Your task to perform on an android device: Go to wifi settings Image 0: 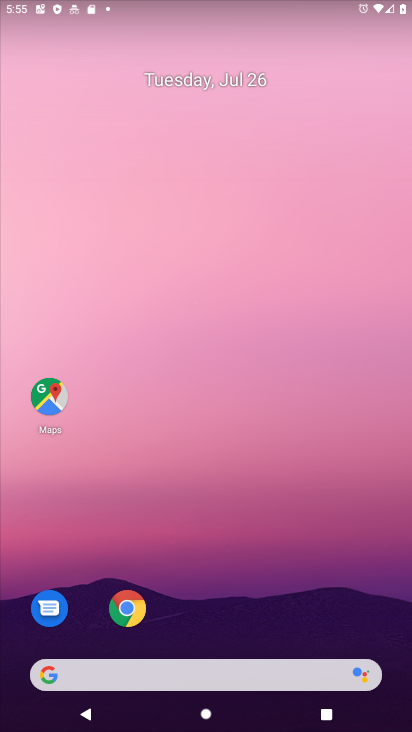
Step 0: press home button
Your task to perform on an android device: Go to wifi settings Image 1: 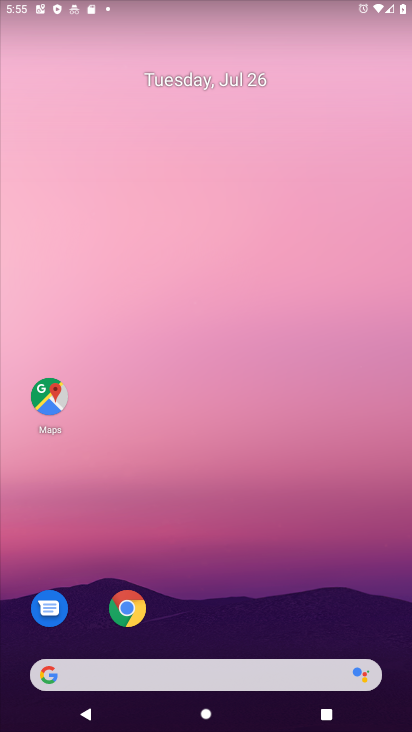
Step 1: drag from (299, 539) to (346, 7)
Your task to perform on an android device: Go to wifi settings Image 2: 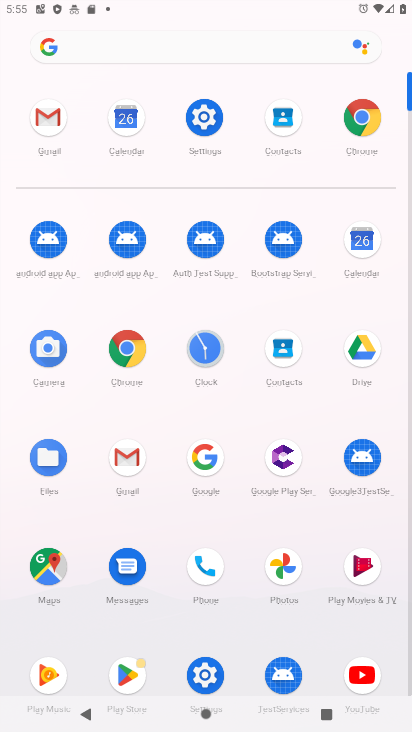
Step 2: click (190, 114)
Your task to perform on an android device: Go to wifi settings Image 3: 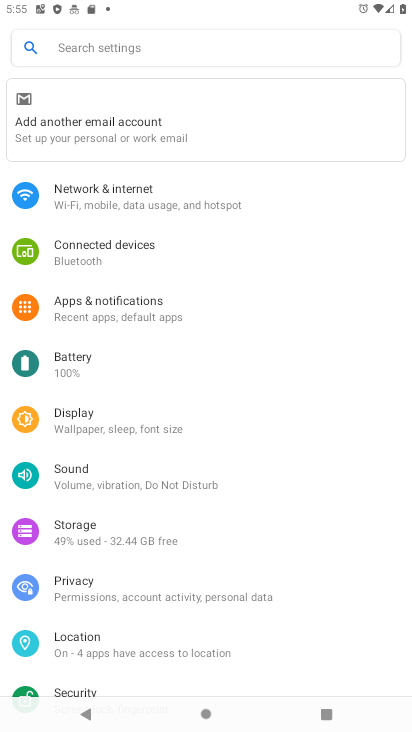
Step 3: click (80, 191)
Your task to perform on an android device: Go to wifi settings Image 4: 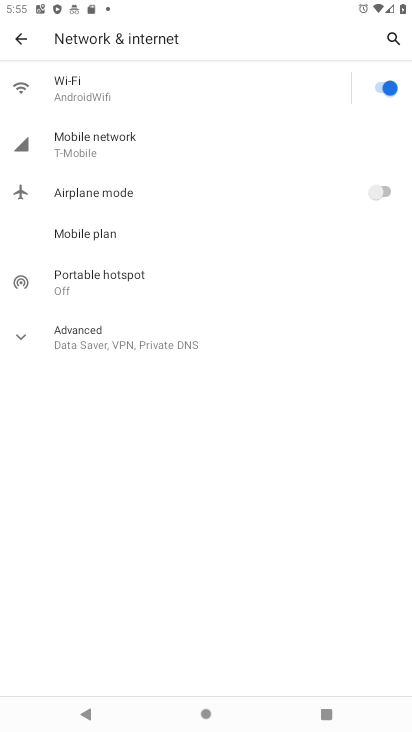
Step 4: click (48, 78)
Your task to perform on an android device: Go to wifi settings Image 5: 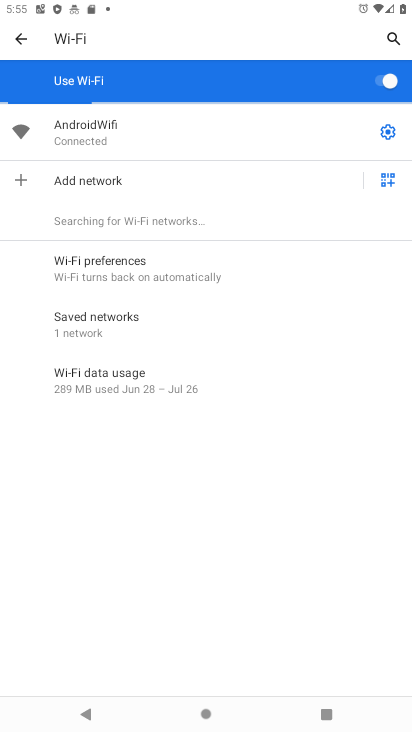
Step 5: task complete